Your task to perform on an android device: Go to Reddit.com Image 0: 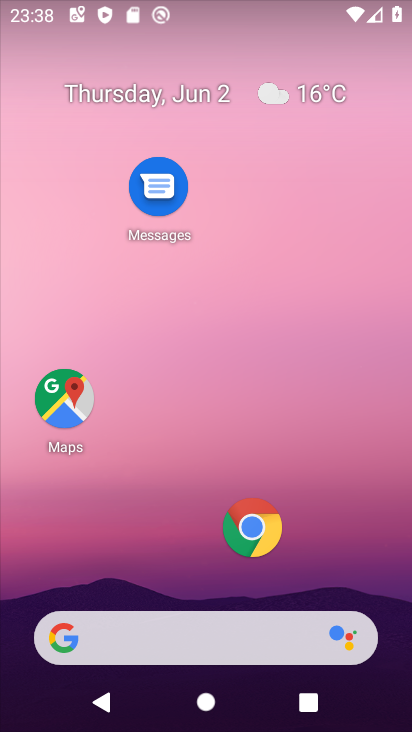
Step 0: press home button
Your task to perform on an android device: Go to Reddit.com Image 1: 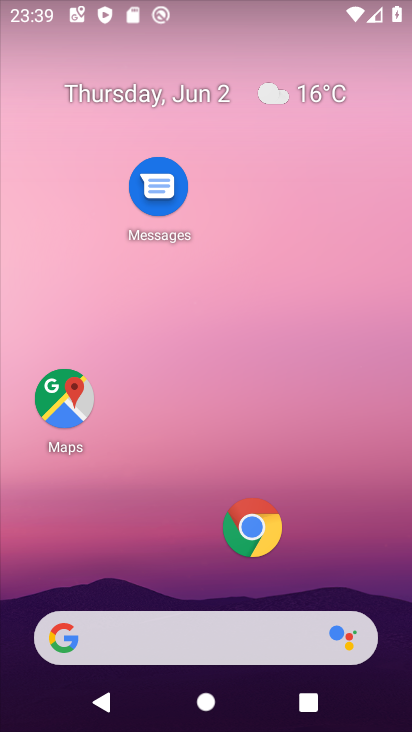
Step 1: click (249, 517)
Your task to perform on an android device: Go to Reddit.com Image 2: 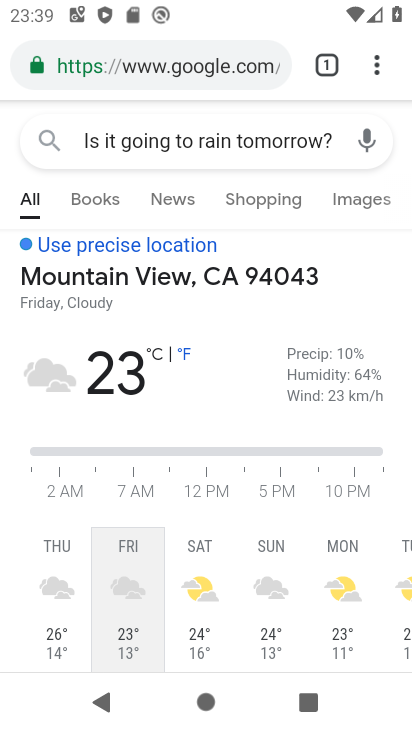
Step 2: click (323, 64)
Your task to perform on an android device: Go to Reddit.com Image 3: 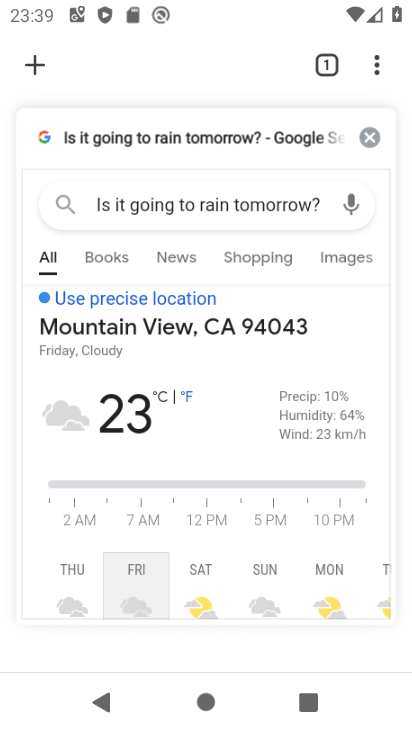
Step 3: click (368, 141)
Your task to perform on an android device: Go to Reddit.com Image 4: 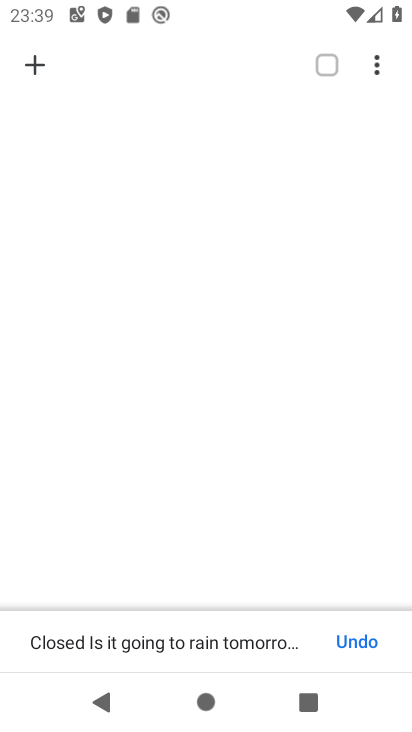
Step 4: click (39, 68)
Your task to perform on an android device: Go to Reddit.com Image 5: 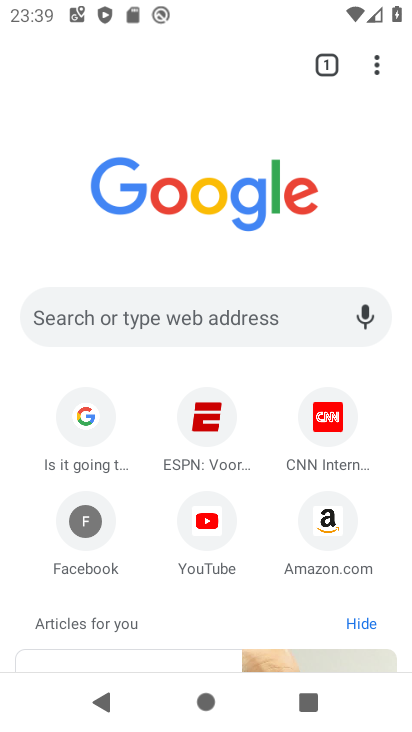
Step 5: click (144, 309)
Your task to perform on an android device: Go to Reddit.com Image 6: 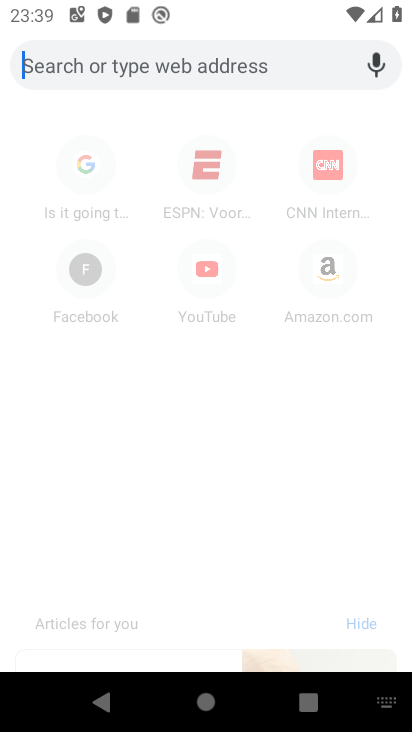
Step 6: type "reddit"
Your task to perform on an android device: Go to Reddit.com Image 7: 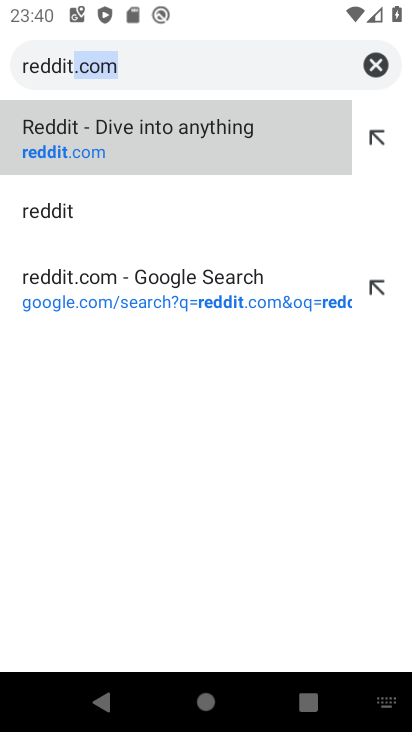
Step 7: click (133, 149)
Your task to perform on an android device: Go to Reddit.com Image 8: 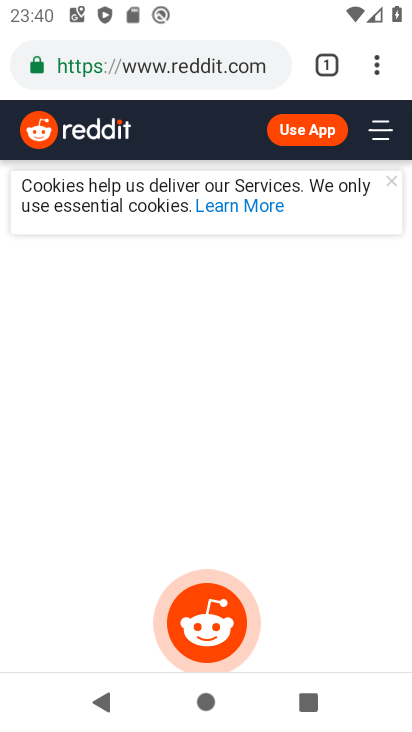
Step 8: click (393, 179)
Your task to perform on an android device: Go to Reddit.com Image 9: 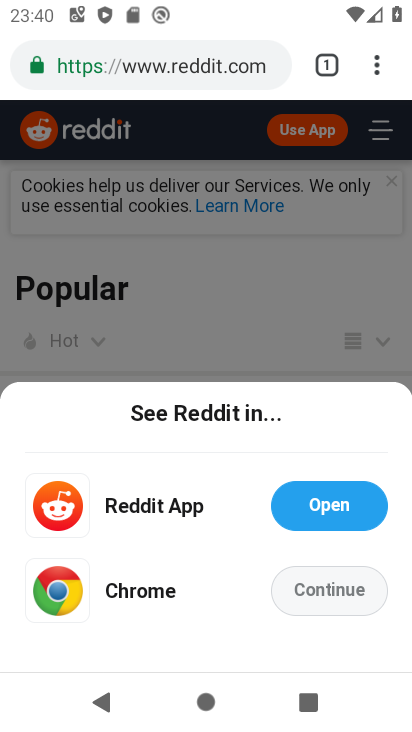
Step 9: click (196, 277)
Your task to perform on an android device: Go to Reddit.com Image 10: 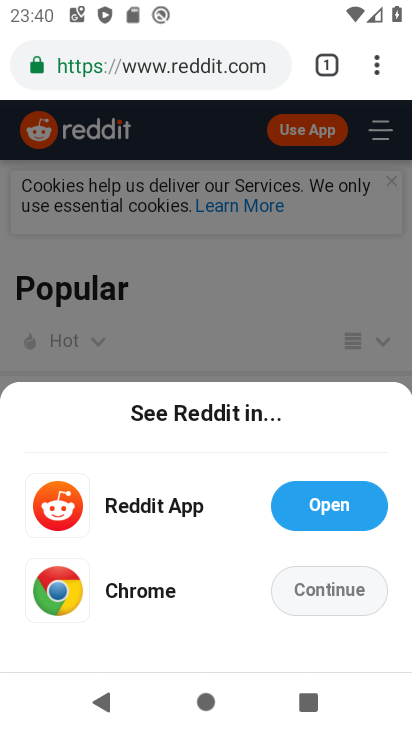
Step 10: click (332, 585)
Your task to perform on an android device: Go to Reddit.com Image 11: 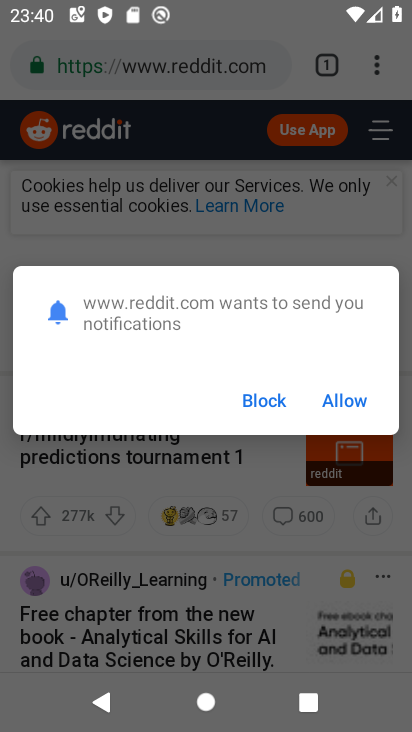
Step 11: click (325, 596)
Your task to perform on an android device: Go to Reddit.com Image 12: 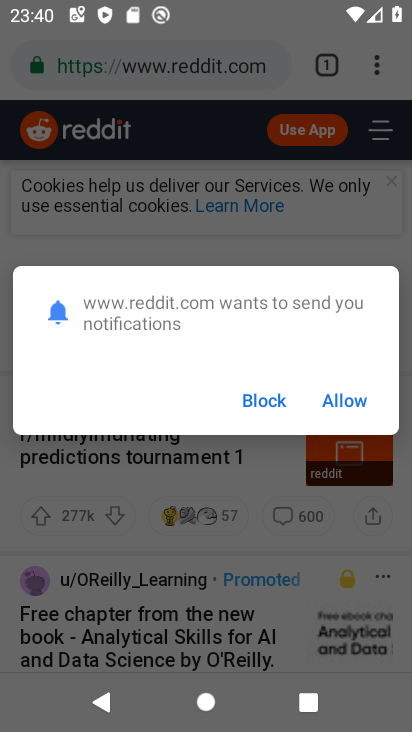
Step 12: click (280, 403)
Your task to perform on an android device: Go to Reddit.com Image 13: 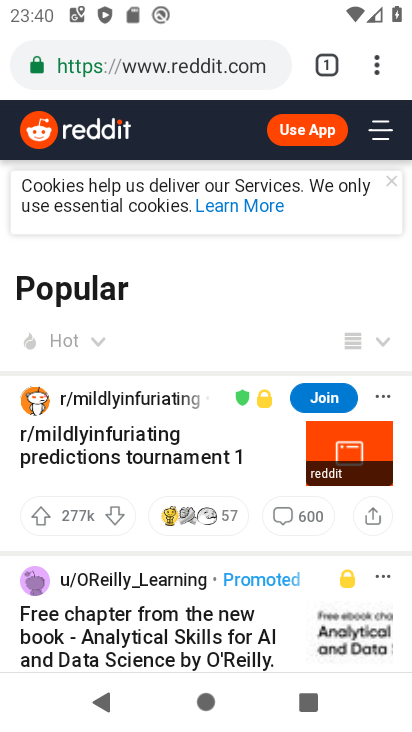
Step 13: task complete